Your task to perform on an android device: What's the weather today? Image 0: 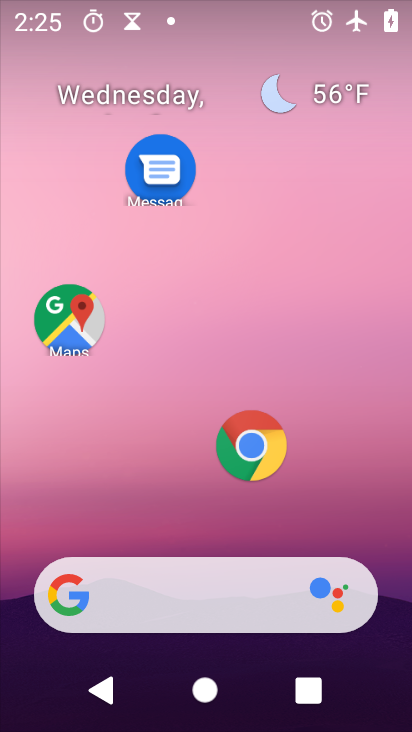
Step 0: drag from (207, 532) to (177, 121)
Your task to perform on an android device: What's the weather today? Image 1: 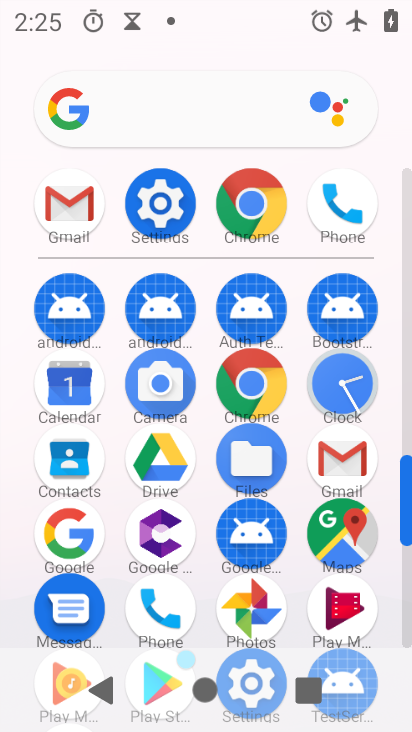
Step 1: click (81, 540)
Your task to perform on an android device: What's the weather today? Image 2: 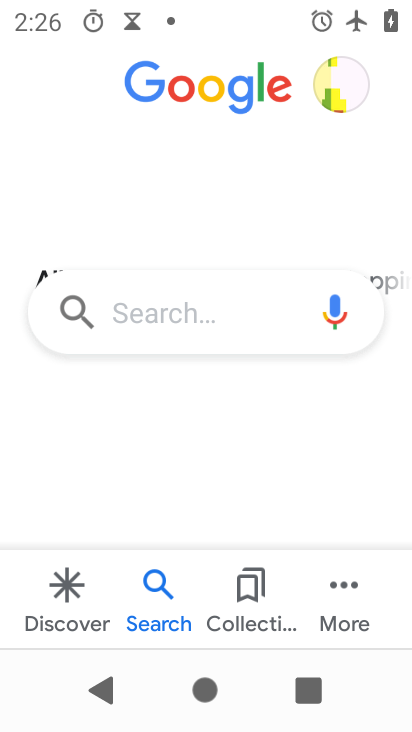
Step 2: click (86, 597)
Your task to perform on an android device: What's the weather today? Image 3: 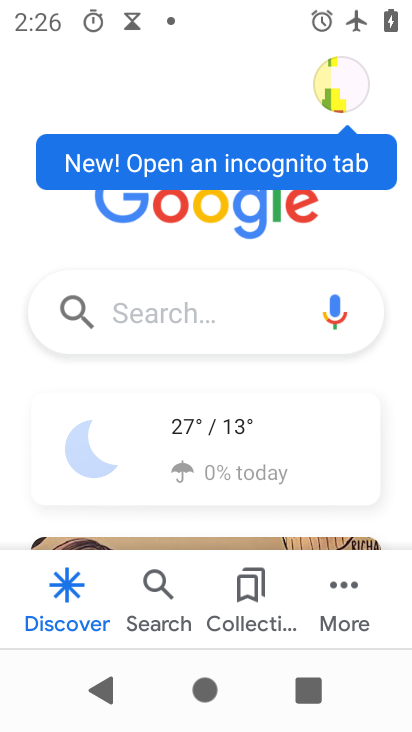
Step 3: click (137, 454)
Your task to perform on an android device: What's the weather today? Image 4: 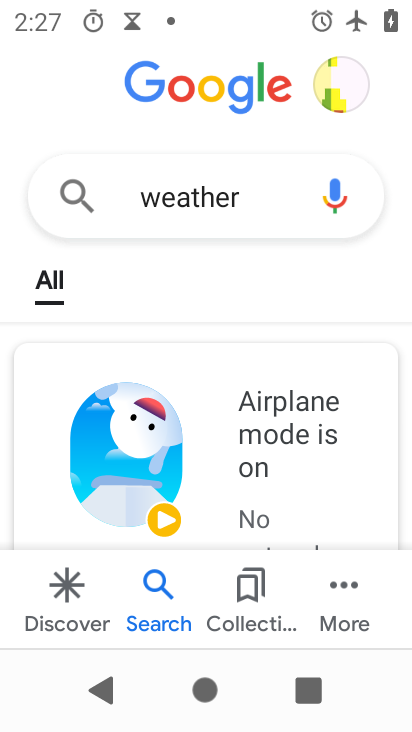
Step 4: click (76, 606)
Your task to perform on an android device: What's the weather today? Image 5: 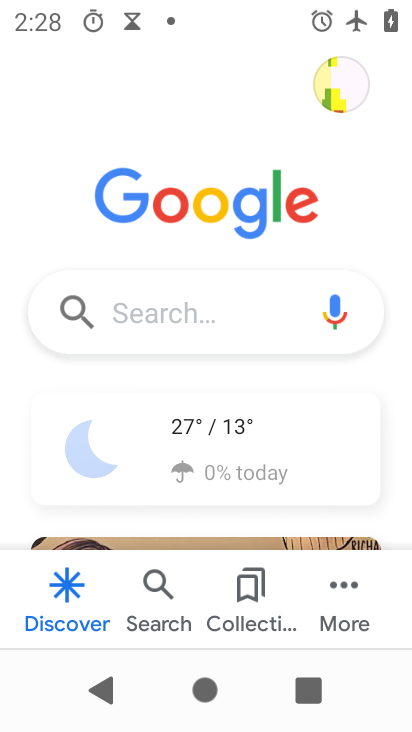
Step 5: click (178, 449)
Your task to perform on an android device: What's the weather today? Image 6: 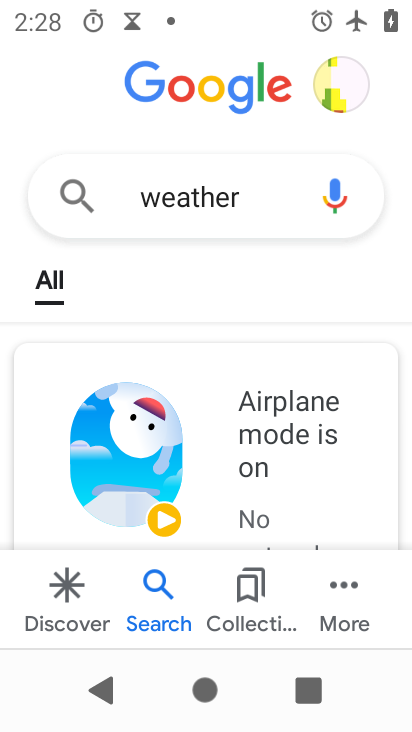
Step 6: click (67, 600)
Your task to perform on an android device: What's the weather today? Image 7: 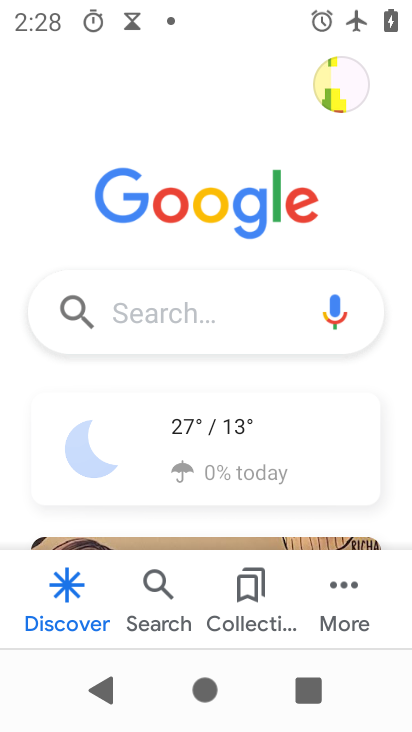
Step 7: click (197, 435)
Your task to perform on an android device: What's the weather today? Image 8: 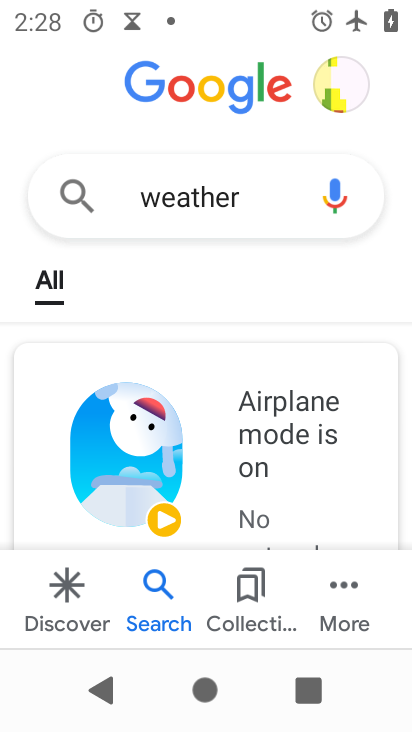
Step 8: task complete